Your task to perform on an android device: change the upload size in google photos Image 0: 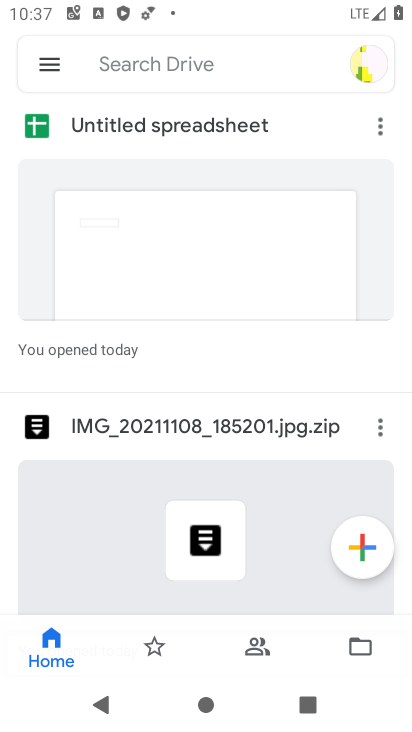
Step 0: press home button
Your task to perform on an android device: change the upload size in google photos Image 1: 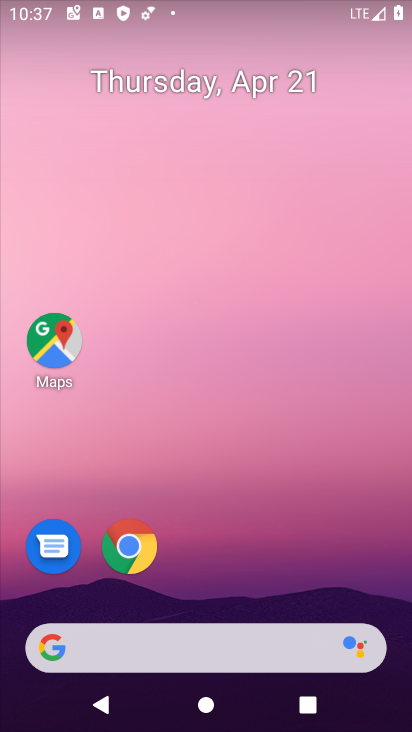
Step 1: drag from (378, 614) to (341, 140)
Your task to perform on an android device: change the upload size in google photos Image 2: 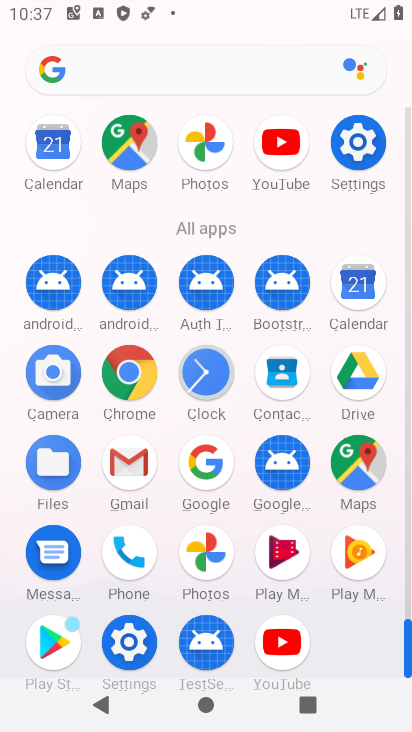
Step 2: click (204, 549)
Your task to perform on an android device: change the upload size in google photos Image 3: 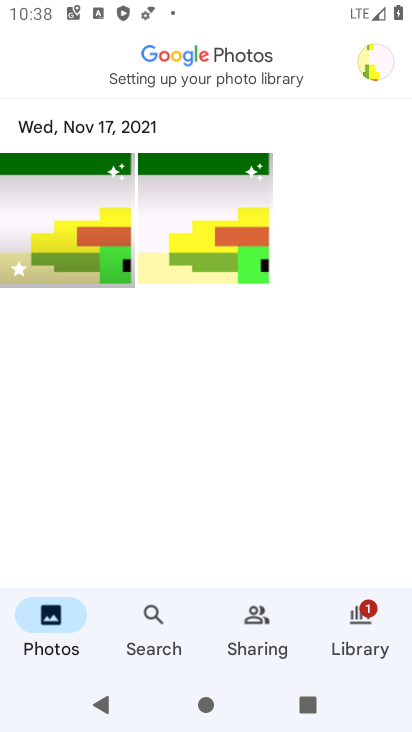
Step 3: click (372, 69)
Your task to perform on an android device: change the upload size in google photos Image 4: 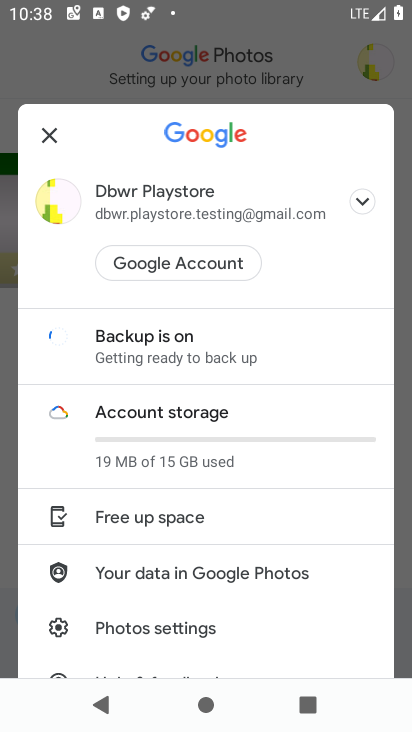
Step 4: drag from (216, 622) to (210, 254)
Your task to perform on an android device: change the upload size in google photos Image 5: 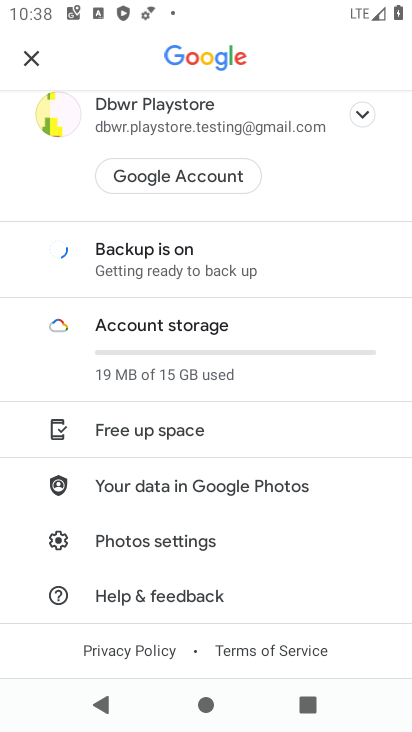
Step 5: click (125, 541)
Your task to perform on an android device: change the upload size in google photos Image 6: 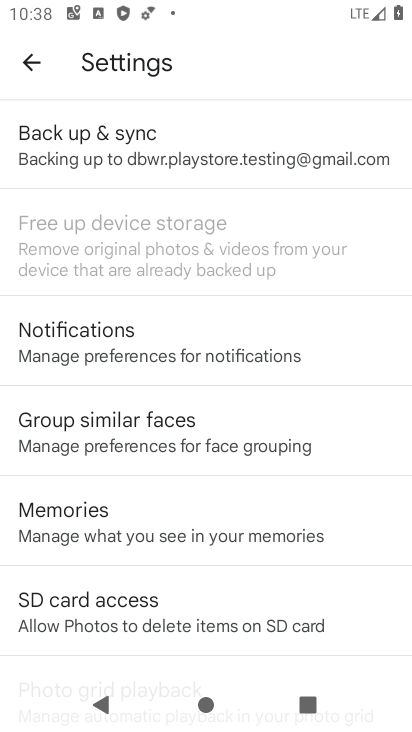
Step 6: click (81, 135)
Your task to perform on an android device: change the upload size in google photos Image 7: 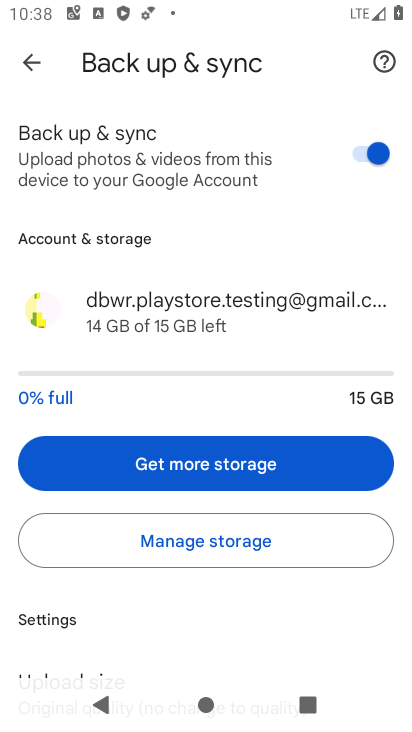
Step 7: drag from (262, 612) to (267, 160)
Your task to perform on an android device: change the upload size in google photos Image 8: 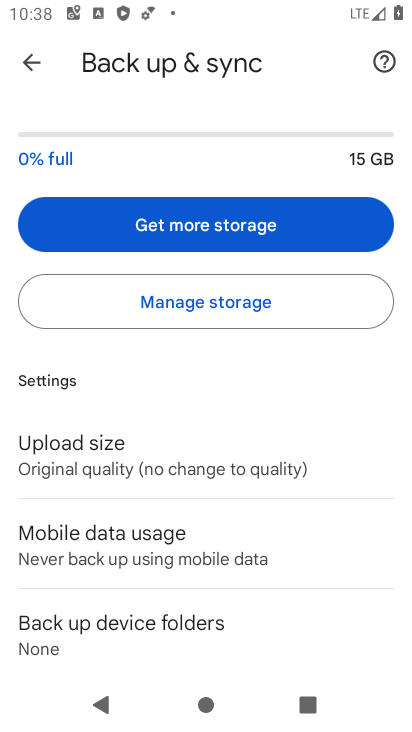
Step 8: click (84, 449)
Your task to perform on an android device: change the upload size in google photos Image 9: 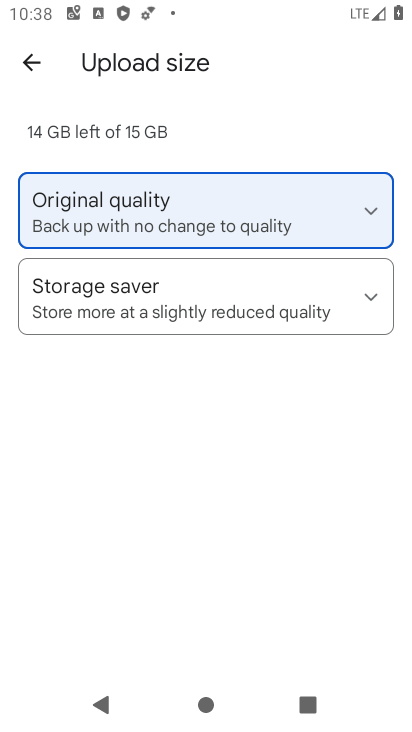
Step 9: click (139, 298)
Your task to perform on an android device: change the upload size in google photos Image 10: 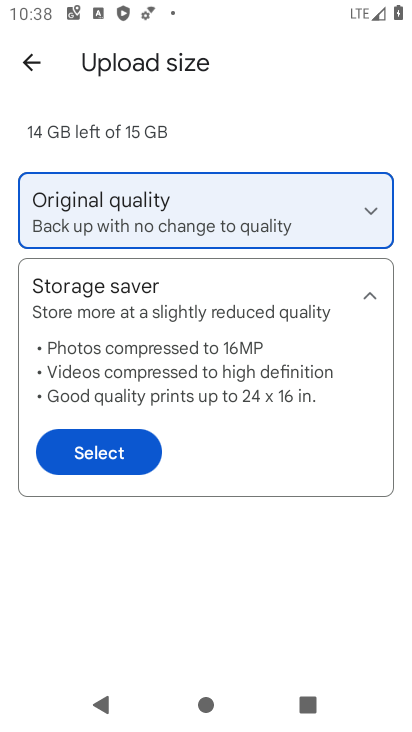
Step 10: click (88, 456)
Your task to perform on an android device: change the upload size in google photos Image 11: 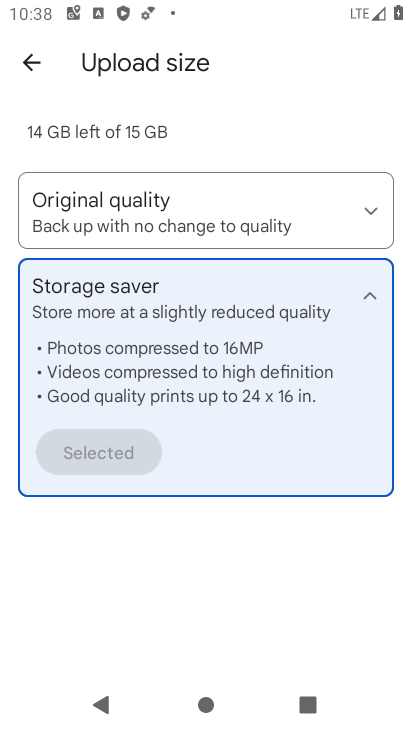
Step 11: task complete